Your task to perform on an android device: Open Yahoo.com Image 0: 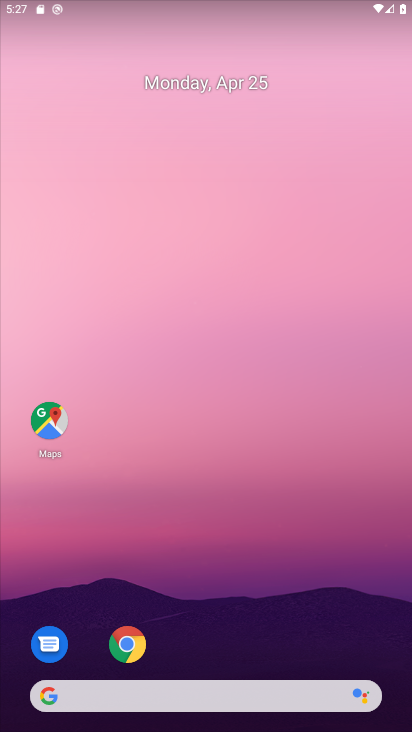
Step 0: click (142, 657)
Your task to perform on an android device: Open Yahoo.com Image 1: 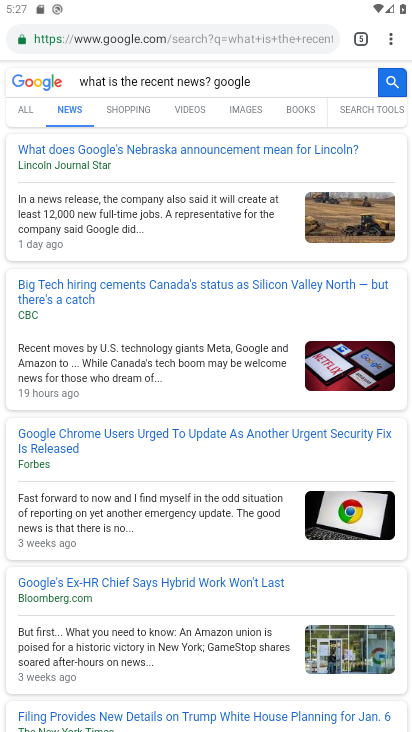
Step 1: click (355, 38)
Your task to perform on an android device: Open Yahoo.com Image 2: 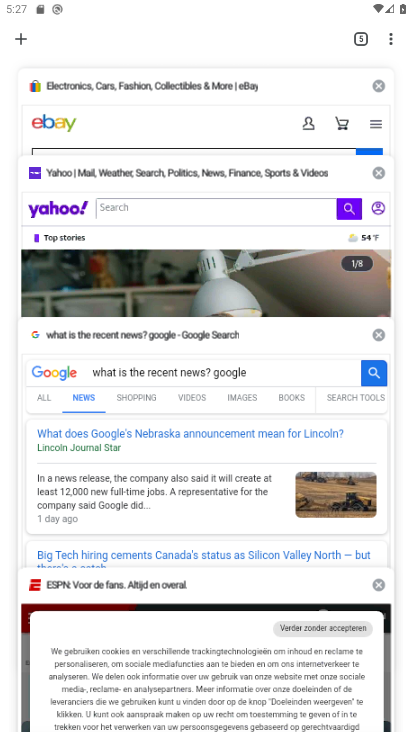
Step 2: click (81, 205)
Your task to perform on an android device: Open Yahoo.com Image 3: 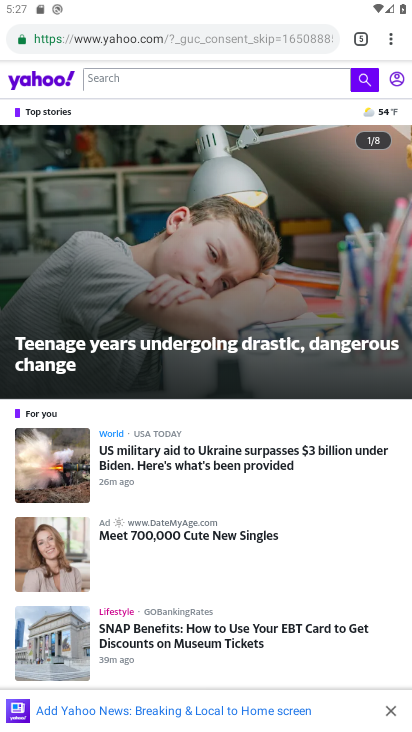
Step 3: task complete